Your task to perform on an android device: open chrome privacy settings Image 0: 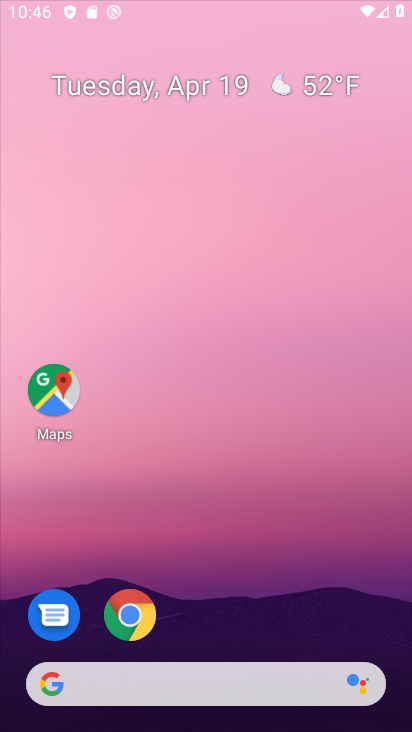
Step 0: drag from (210, 583) to (380, 24)
Your task to perform on an android device: open chrome privacy settings Image 1: 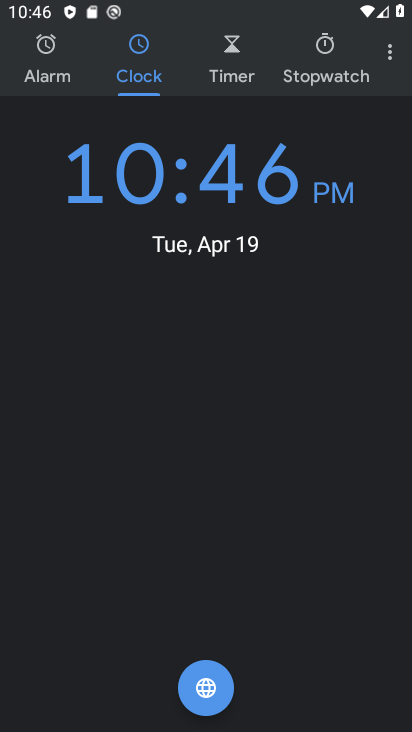
Step 1: press home button
Your task to perform on an android device: open chrome privacy settings Image 2: 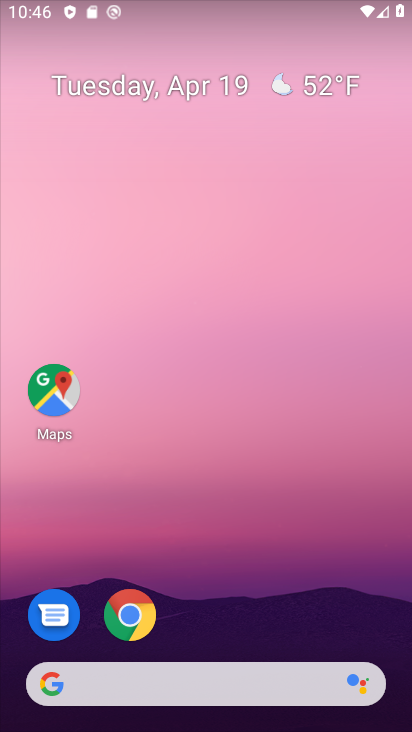
Step 2: click (138, 607)
Your task to perform on an android device: open chrome privacy settings Image 3: 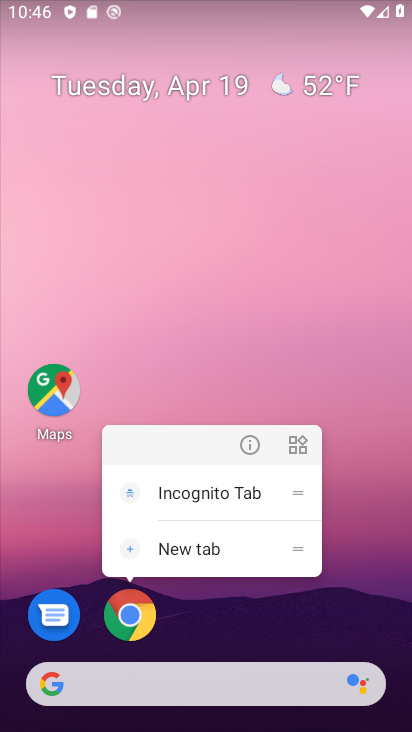
Step 3: click (115, 607)
Your task to perform on an android device: open chrome privacy settings Image 4: 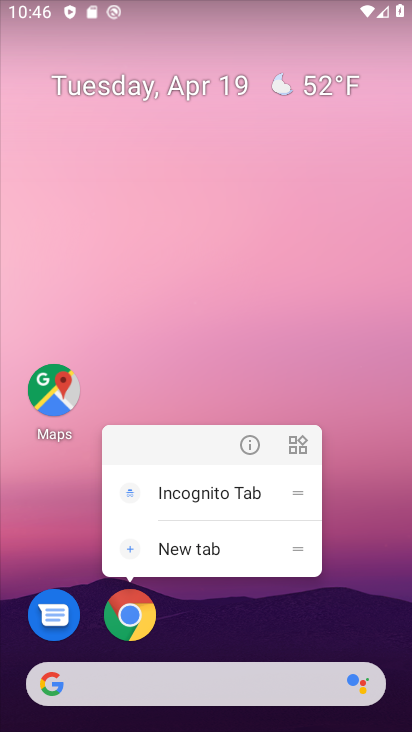
Step 4: click (115, 607)
Your task to perform on an android device: open chrome privacy settings Image 5: 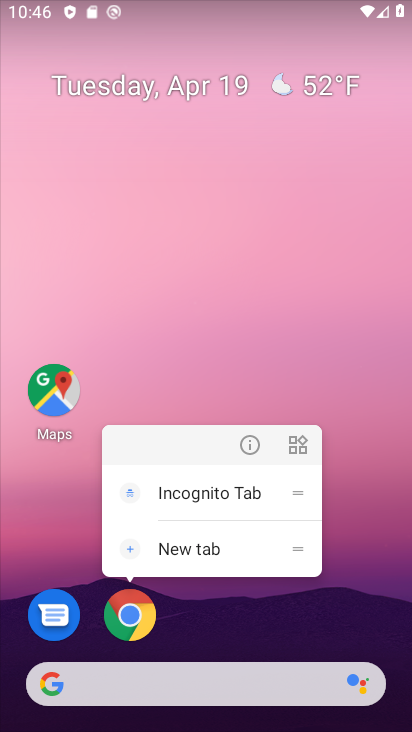
Step 5: click (115, 607)
Your task to perform on an android device: open chrome privacy settings Image 6: 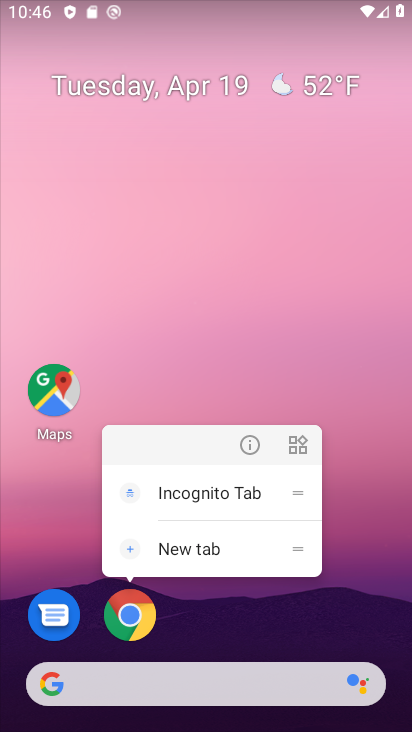
Step 6: click (129, 611)
Your task to perform on an android device: open chrome privacy settings Image 7: 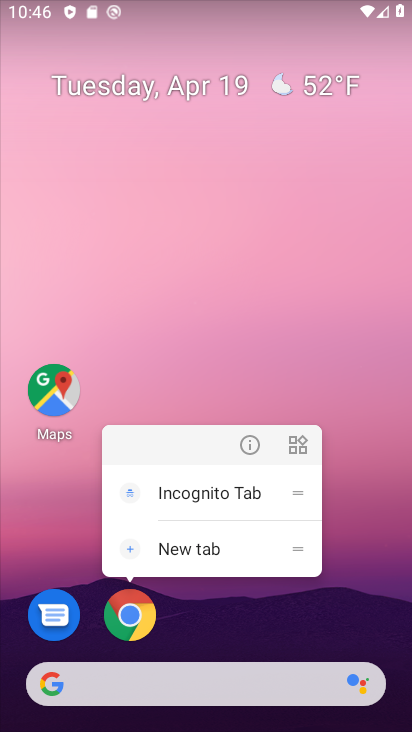
Step 7: click (129, 611)
Your task to perform on an android device: open chrome privacy settings Image 8: 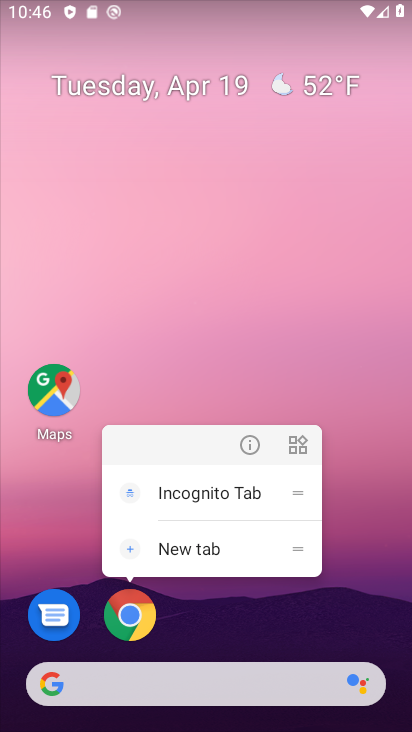
Step 8: click (129, 611)
Your task to perform on an android device: open chrome privacy settings Image 9: 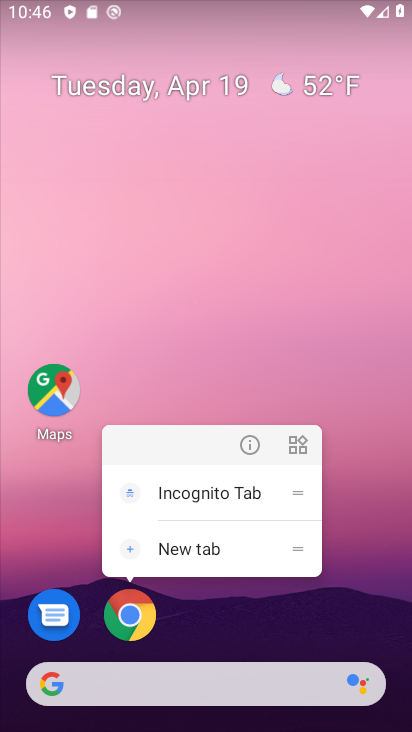
Step 9: click (129, 611)
Your task to perform on an android device: open chrome privacy settings Image 10: 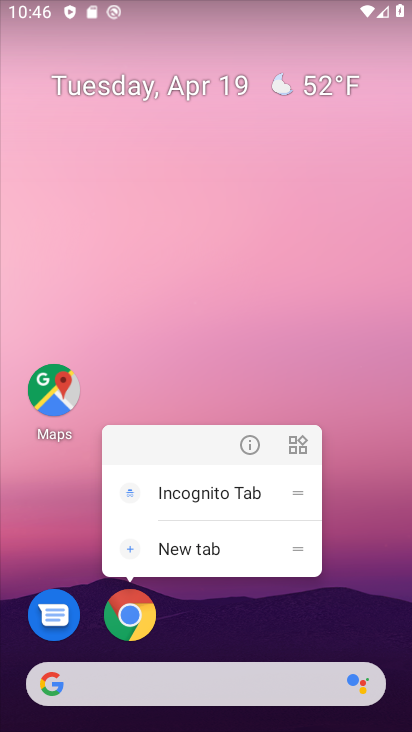
Step 10: click (129, 611)
Your task to perform on an android device: open chrome privacy settings Image 11: 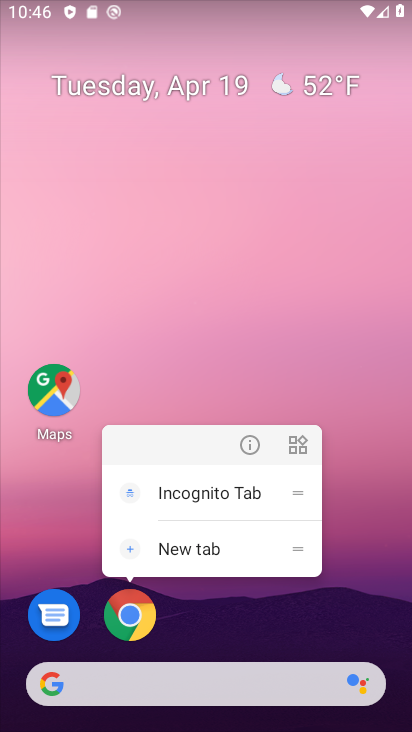
Step 11: click (123, 633)
Your task to perform on an android device: open chrome privacy settings Image 12: 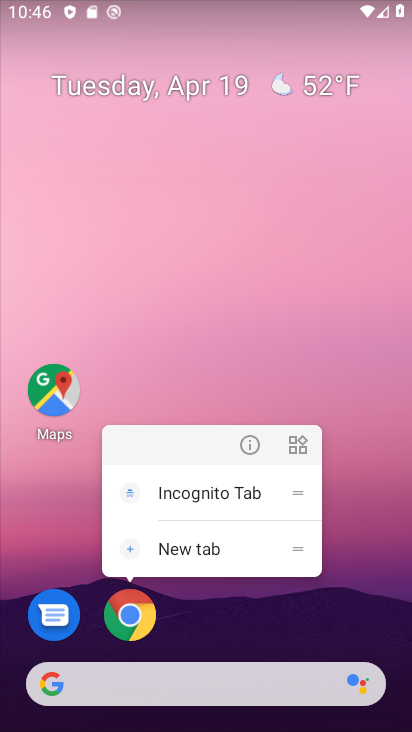
Step 12: click (123, 633)
Your task to perform on an android device: open chrome privacy settings Image 13: 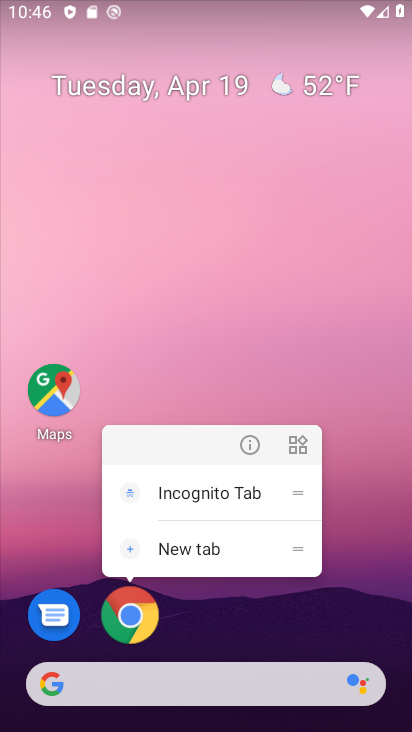
Step 13: click (123, 633)
Your task to perform on an android device: open chrome privacy settings Image 14: 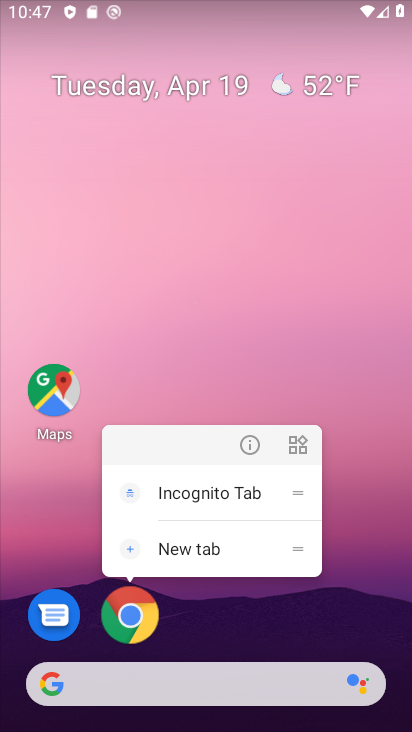
Step 14: click (123, 633)
Your task to perform on an android device: open chrome privacy settings Image 15: 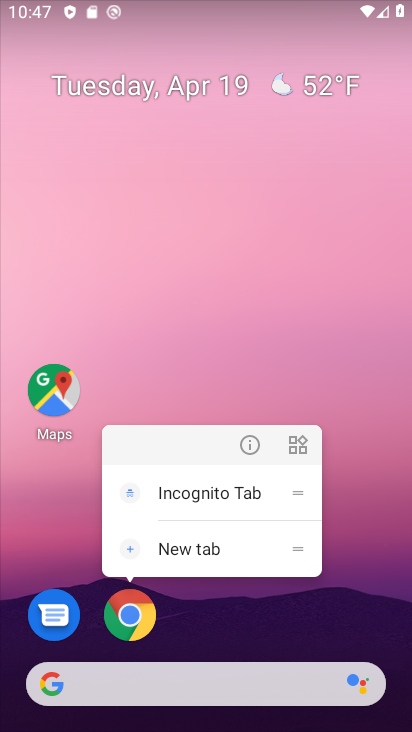
Step 15: click (125, 616)
Your task to perform on an android device: open chrome privacy settings Image 16: 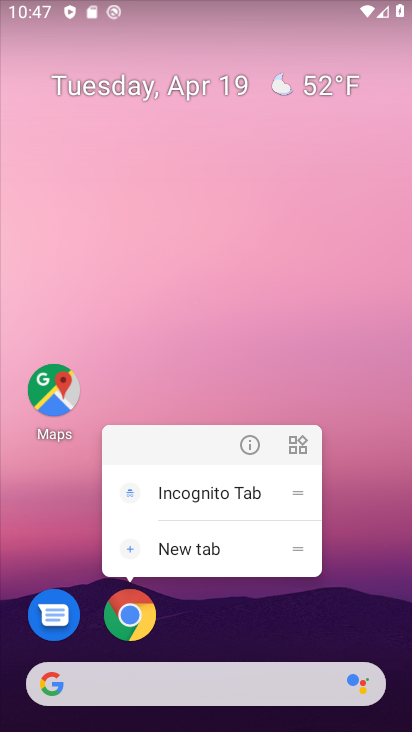
Step 16: click (125, 616)
Your task to perform on an android device: open chrome privacy settings Image 17: 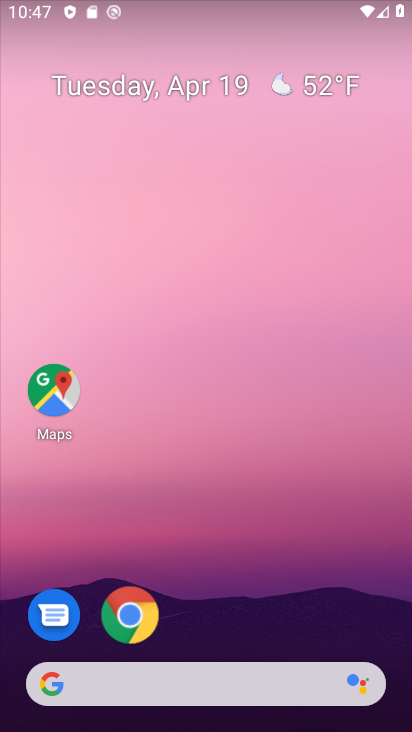
Step 17: click (125, 616)
Your task to perform on an android device: open chrome privacy settings Image 18: 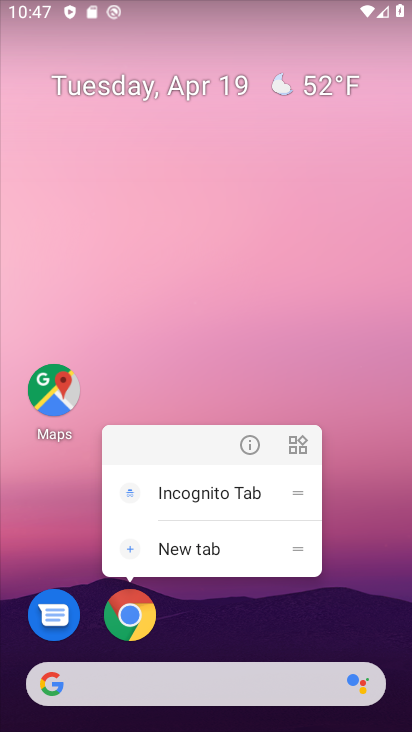
Step 18: click (125, 616)
Your task to perform on an android device: open chrome privacy settings Image 19: 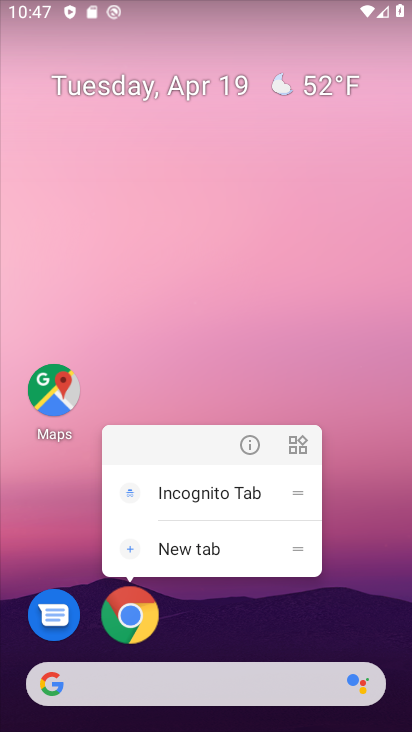
Step 19: click (125, 616)
Your task to perform on an android device: open chrome privacy settings Image 20: 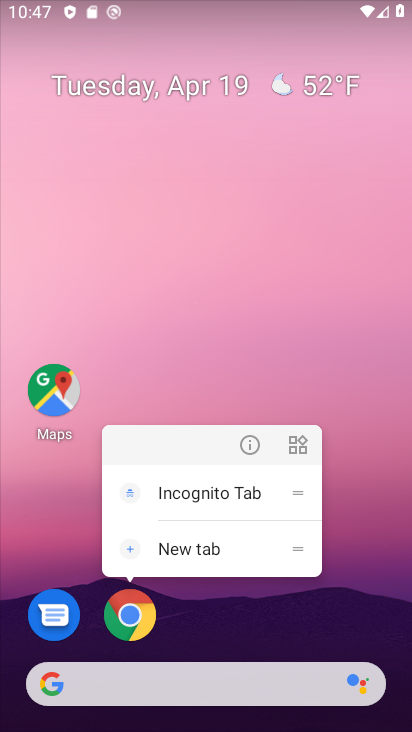
Step 20: click (125, 616)
Your task to perform on an android device: open chrome privacy settings Image 21: 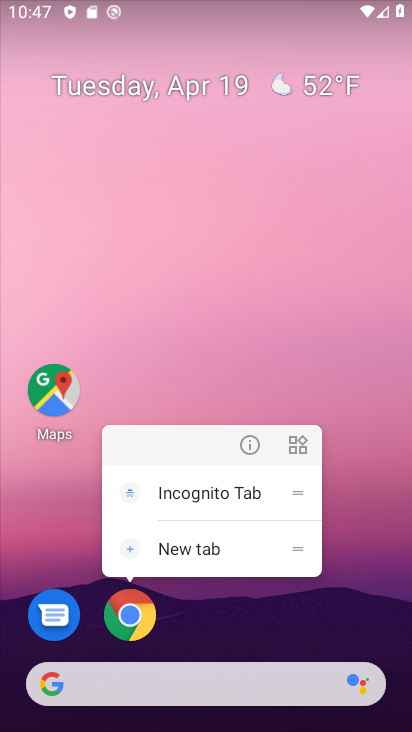
Step 21: click (125, 616)
Your task to perform on an android device: open chrome privacy settings Image 22: 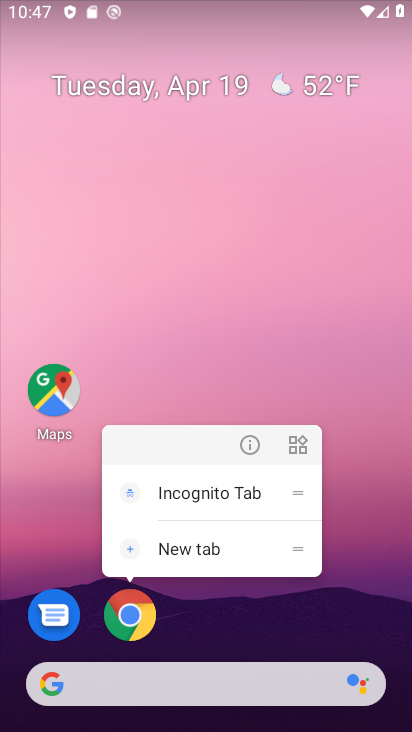
Step 22: click (125, 616)
Your task to perform on an android device: open chrome privacy settings Image 23: 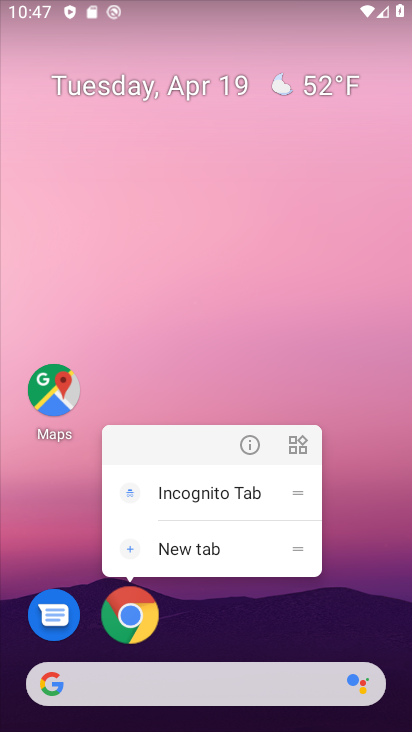
Step 23: click (125, 616)
Your task to perform on an android device: open chrome privacy settings Image 24: 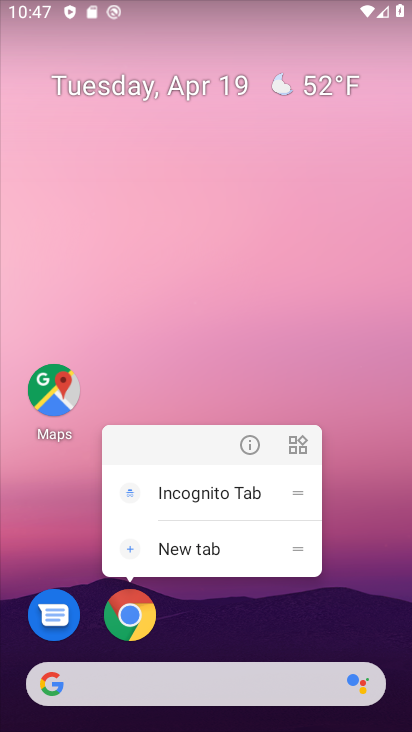
Step 24: click (192, 541)
Your task to perform on an android device: open chrome privacy settings Image 25: 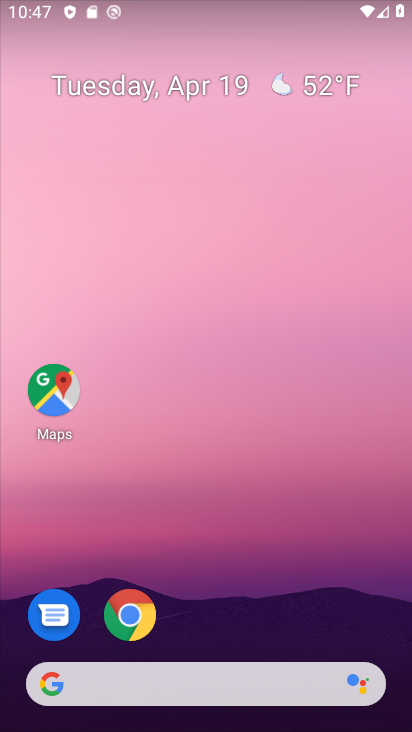
Step 25: click (117, 614)
Your task to perform on an android device: open chrome privacy settings Image 26: 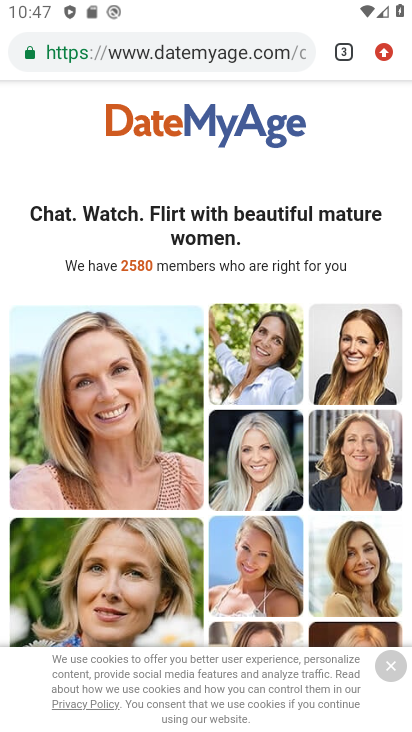
Step 26: click (386, 57)
Your task to perform on an android device: open chrome privacy settings Image 27: 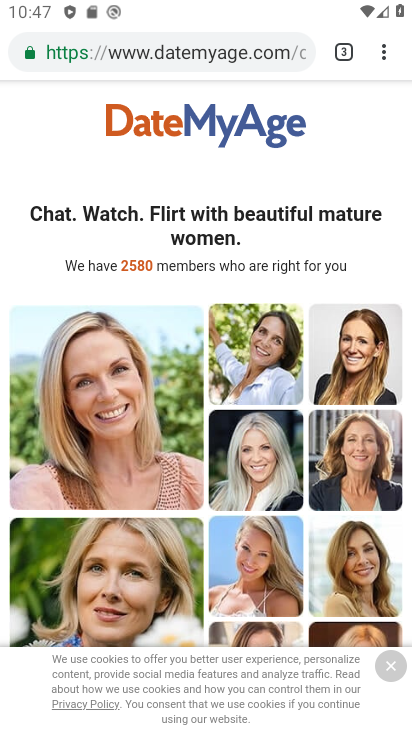
Step 27: click (381, 46)
Your task to perform on an android device: open chrome privacy settings Image 28: 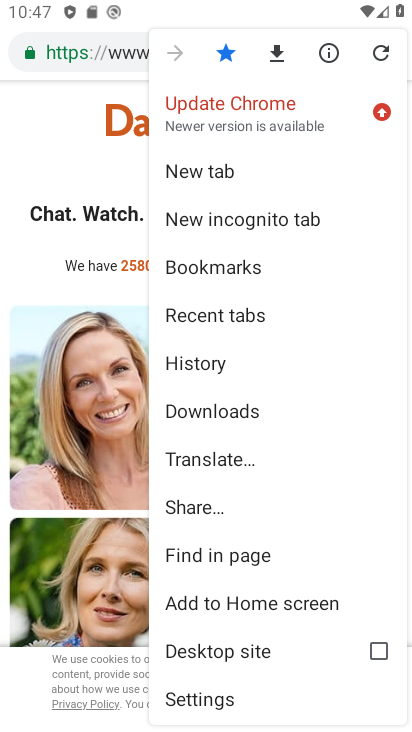
Step 28: click (189, 702)
Your task to perform on an android device: open chrome privacy settings Image 29: 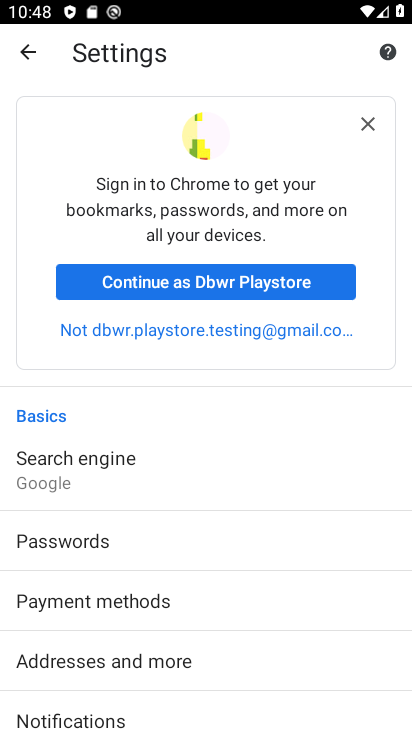
Step 29: drag from (150, 659) to (315, 327)
Your task to perform on an android device: open chrome privacy settings Image 30: 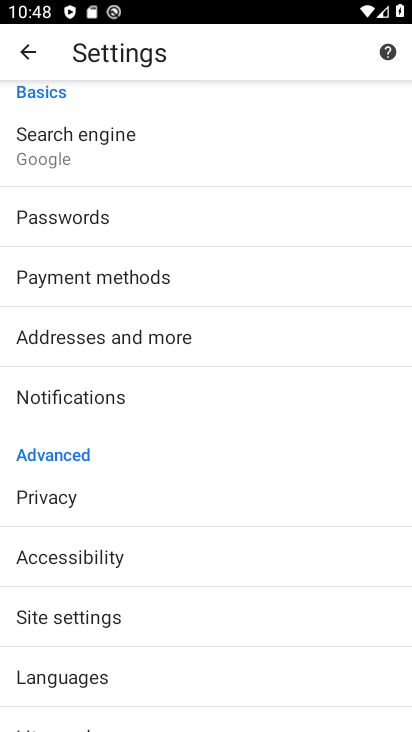
Step 30: click (37, 498)
Your task to perform on an android device: open chrome privacy settings Image 31: 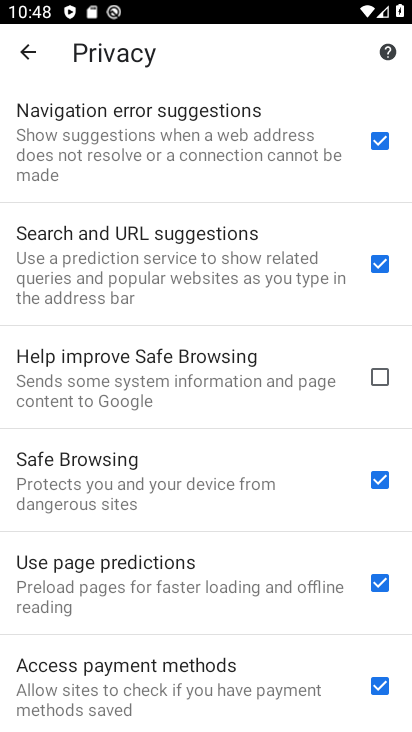
Step 31: task complete